Your task to perform on an android device: Open display settings Image 0: 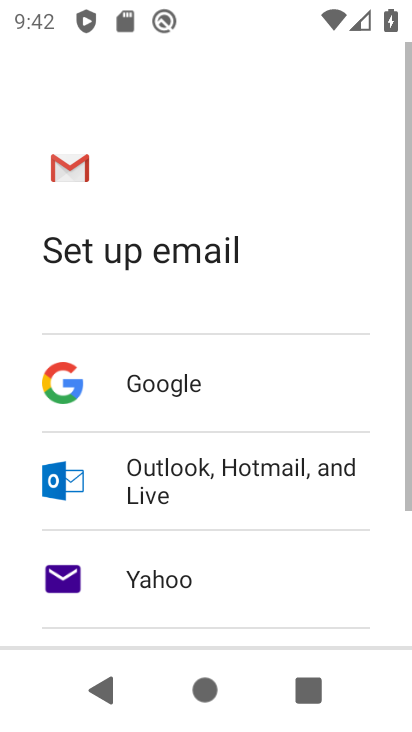
Step 0: press home button
Your task to perform on an android device: Open display settings Image 1: 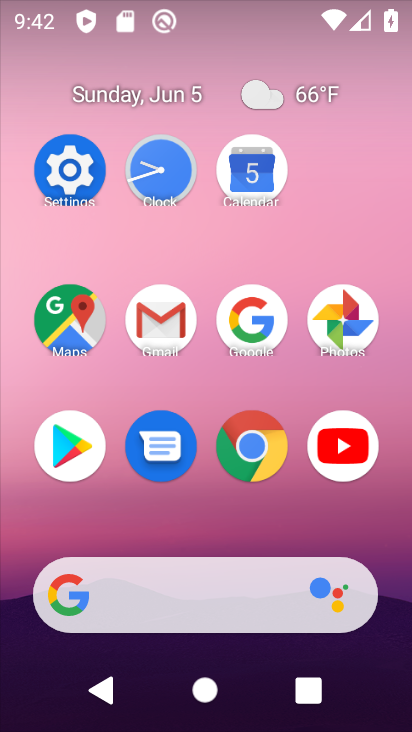
Step 1: click (61, 177)
Your task to perform on an android device: Open display settings Image 2: 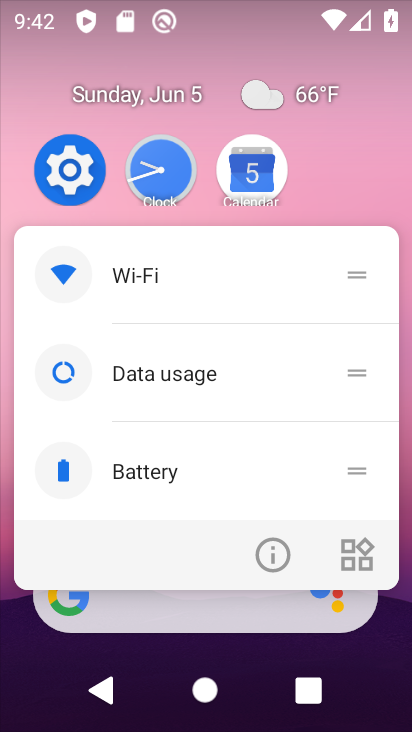
Step 2: click (81, 161)
Your task to perform on an android device: Open display settings Image 3: 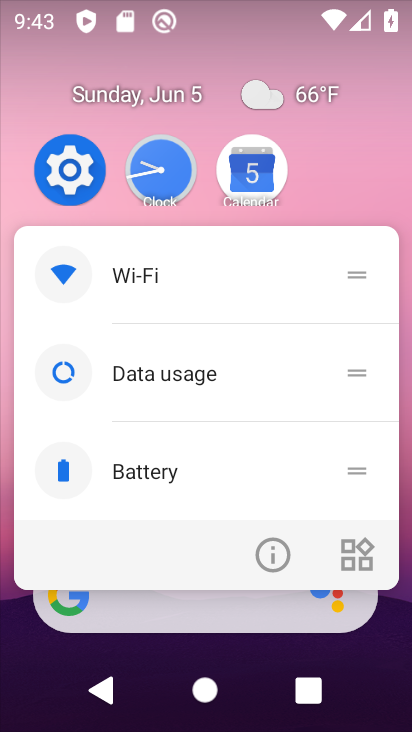
Step 3: click (83, 162)
Your task to perform on an android device: Open display settings Image 4: 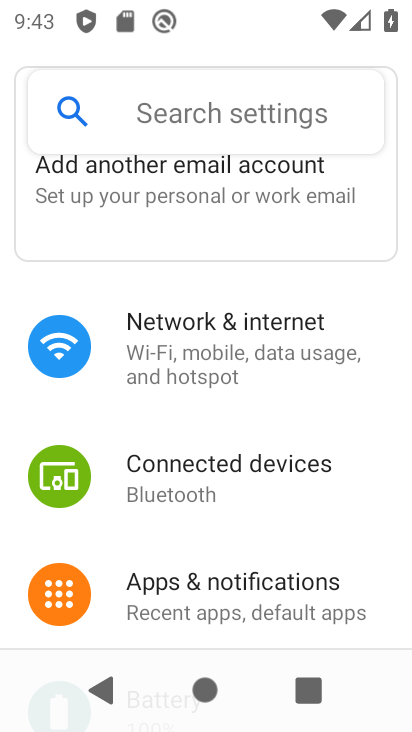
Step 4: drag from (232, 504) to (268, 166)
Your task to perform on an android device: Open display settings Image 5: 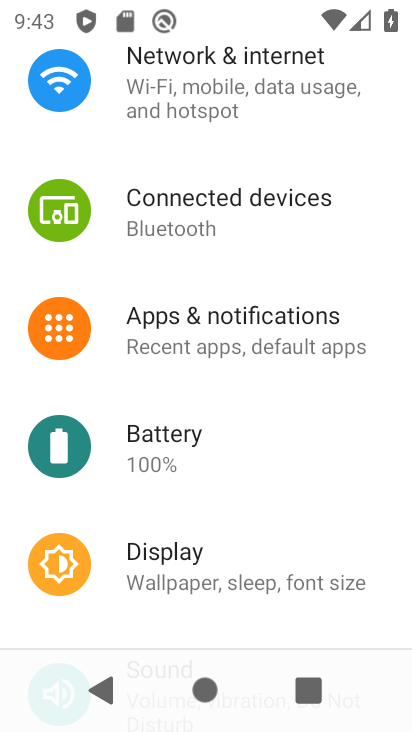
Step 5: drag from (253, 466) to (251, 126)
Your task to perform on an android device: Open display settings Image 6: 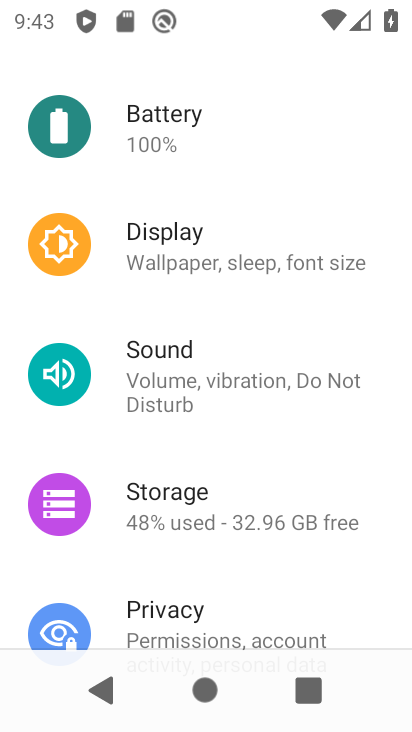
Step 6: click (227, 256)
Your task to perform on an android device: Open display settings Image 7: 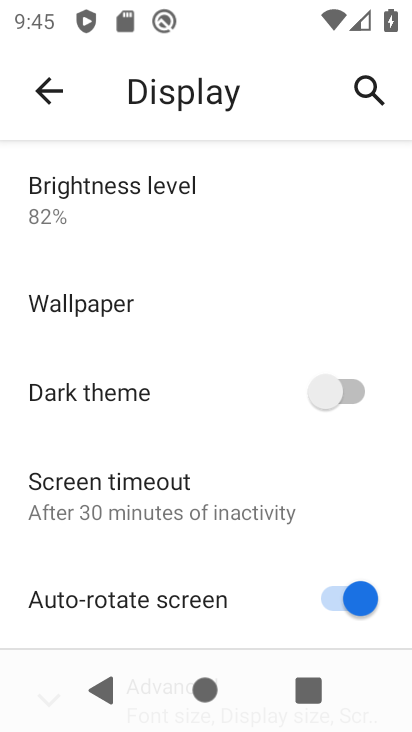
Step 7: task complete